Your task to perform on an android device: set the stopwatch Image 0: 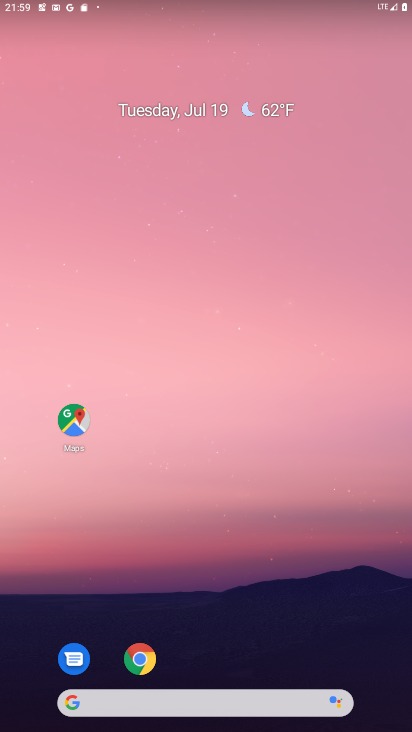
Step 0: drag from (293, 639) to (359, 192)
Your task to perform on an android device: set the stopwatch Image 1: 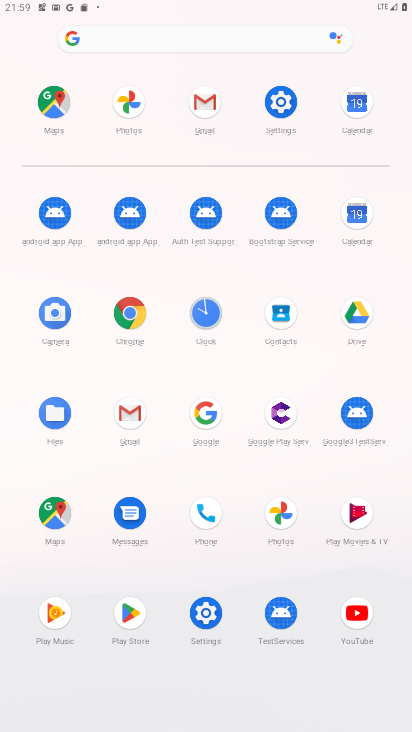
Step 1: click (207, 312)
Your task to perform on an android device: set the stopwatch Image 2: 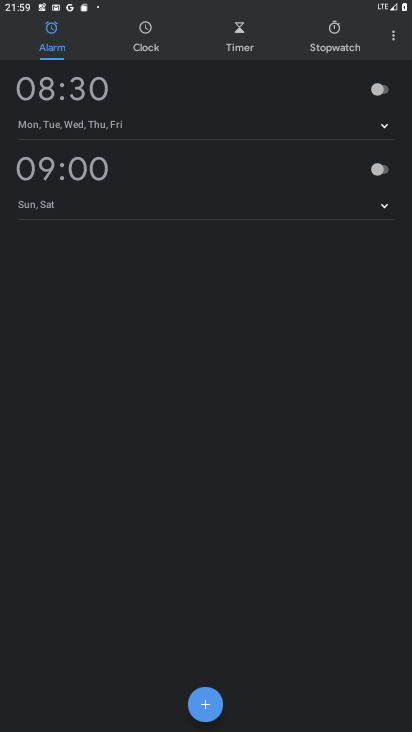
Step 2: click (336, 32)
Your task to perform on an android device: set the stopwatch Image 3: 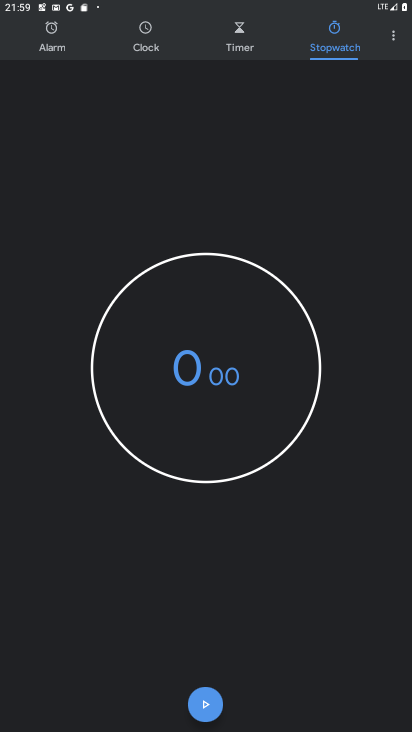
Step 3: click (204, 710)
Your task to perform on an android device: set the stopwatch Image 4: 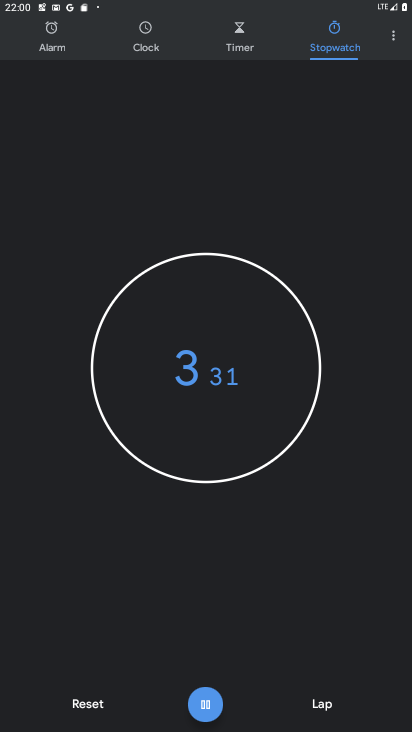
Step 4: task complete